Your task to perform on an android device: refresh tabs in the chrome app Image 0: 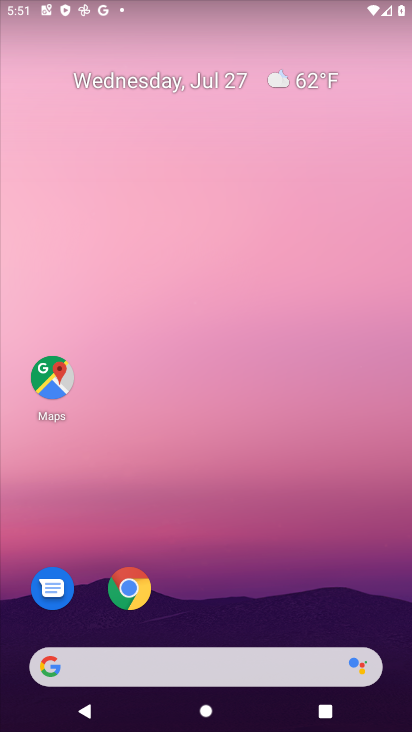
Step 0: click (126, 584)
Your task to perform on an android device: refresh tabs in the chrome app Image 1: 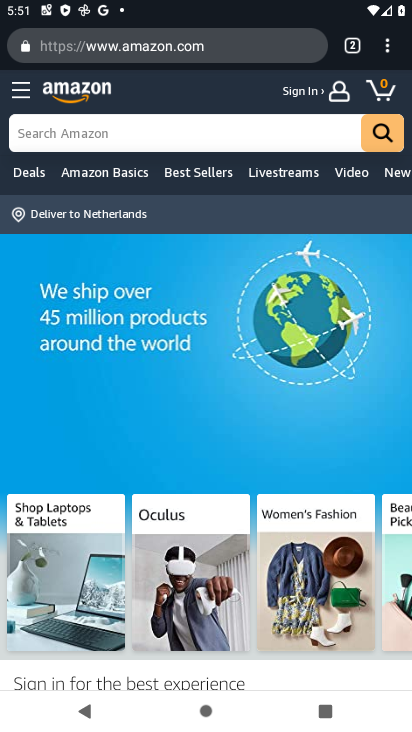
Step 1: click (387, 45)
Your task to perform on an android device: refresh tabs in the chrome app Image 2: 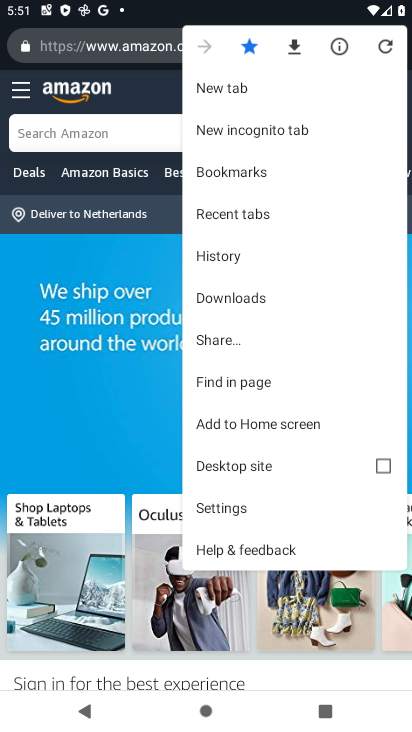
Step 2: click (389, 50)
Your task to perform on an android device: refresh tabs in the chrome app Image 3: 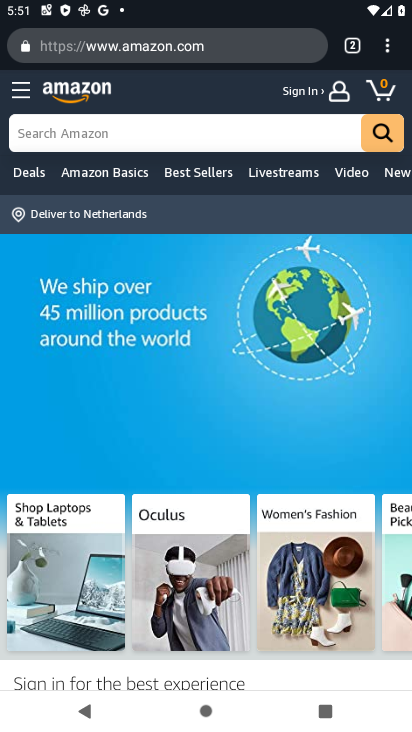
Step 3: task complete